Your task to perform on an android device: When is my next appointment? Image 0: 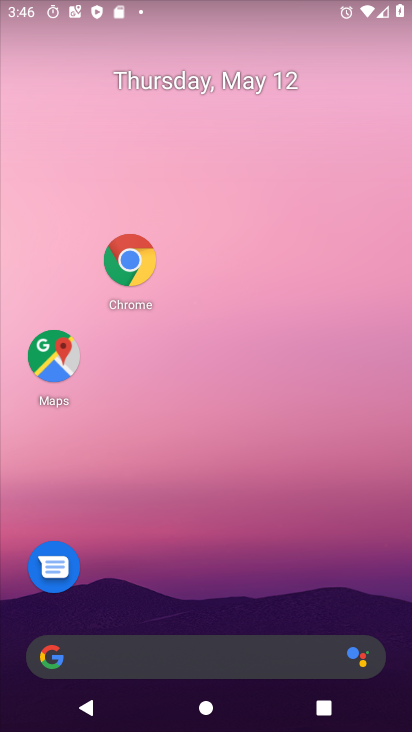
Step 0: drag from (235, 644) to (337, 186)
Your task to perform on an android device: When is my next appointment? Image 1: 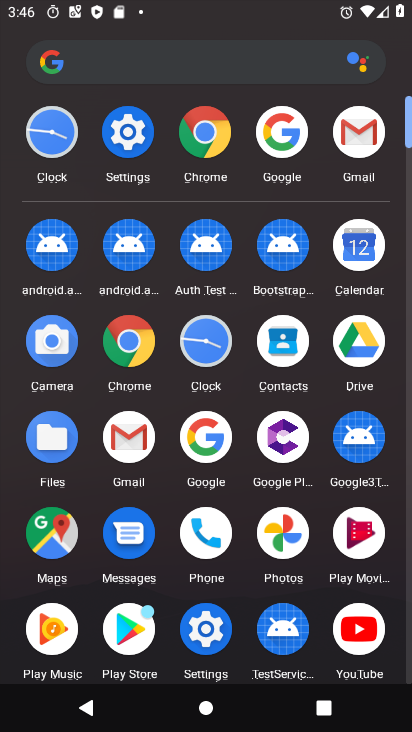
Step 1: click (352, 253)
Your task to perform on an android device: When is my next appointment? Image 2: 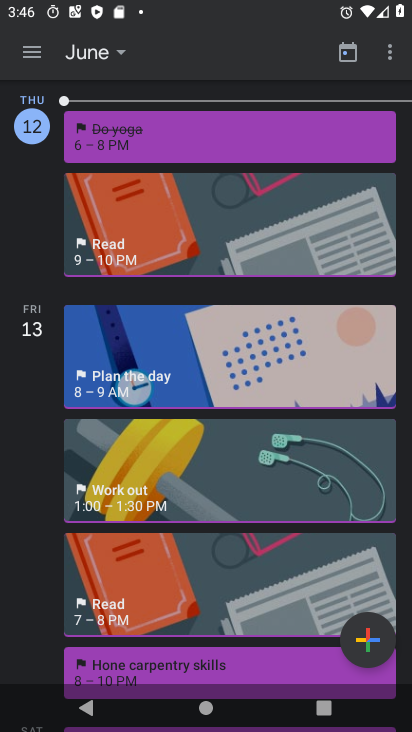
Step 2: click (169, 383)
Your task to perform on an android device: When is my next appointment? Image 3: 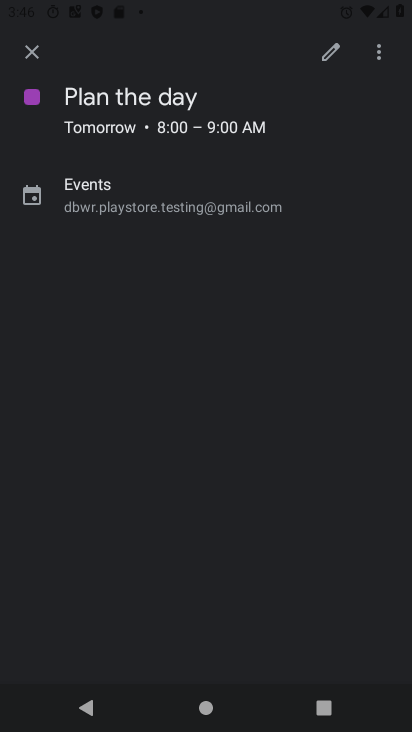
Step 3: task complete